Your task to perform on an android device: Turn off the flashlight Image 0: 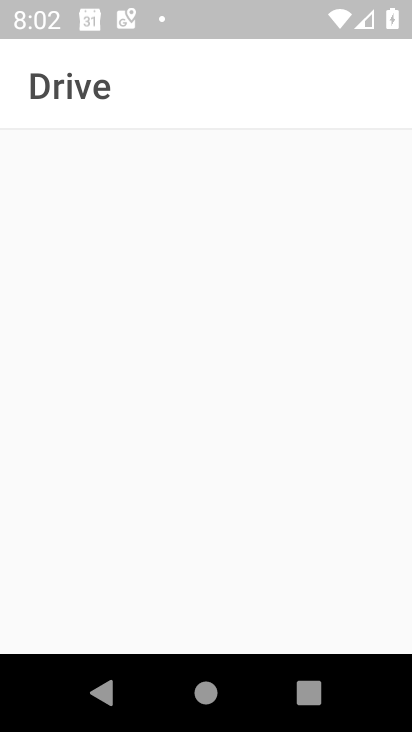
Step 0: press home button
Your task to perform on an android device: Turn off the flashlight Image 1: 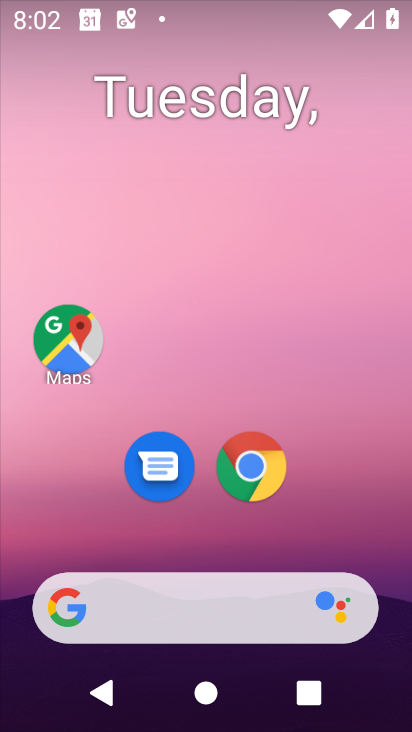
Step 1: drag from (358, 524) to (339, 133)
Your task to perform on an android device: Turn off the flashlight Image 2: 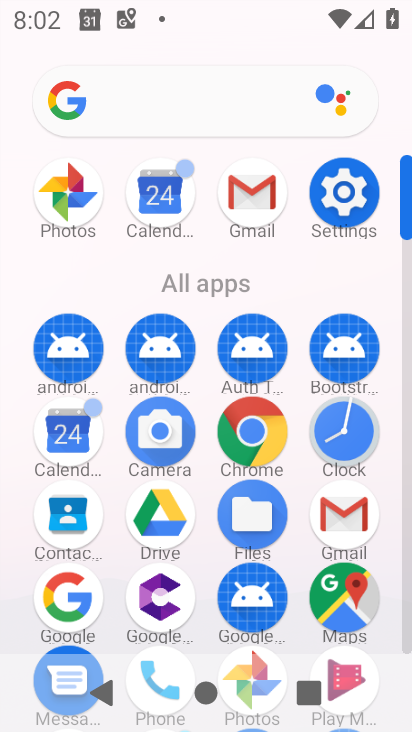
Step 2: click (329, 182)
Your task to perform on an android device: Turn off the flashlight Image 3: 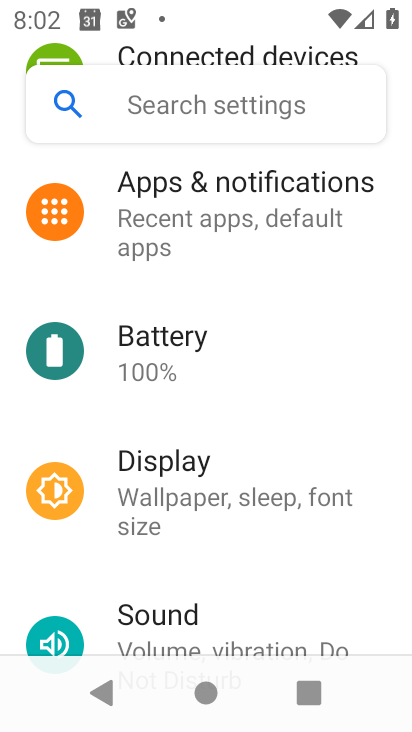
Step 3: click (264, 237)
Your task to perform on an android device: Turn off the flashlight Image 4: 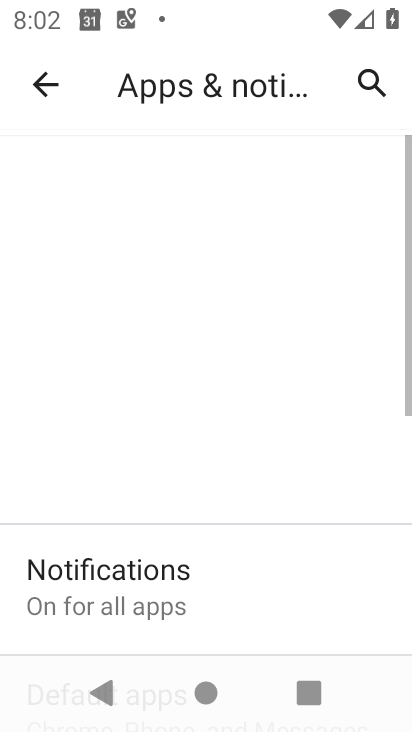
Step 4: task complete